Your task to perform on an android device: Turn off the flashlight Image 0: 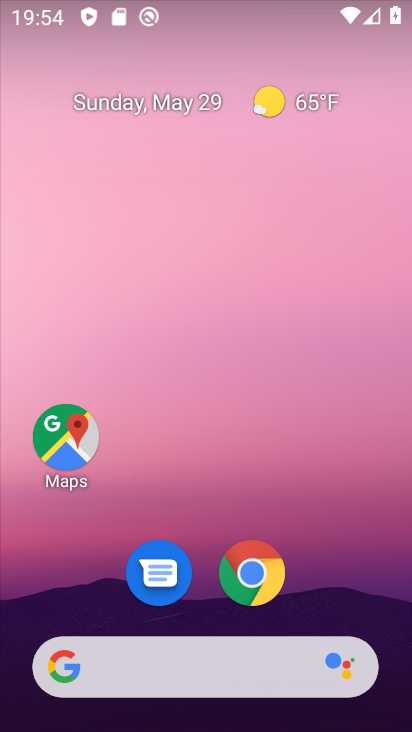
Step 0: drag from (195, 610) to (175, 210)
Your task to perform on an android device: Turn off the flashlight Image 1: 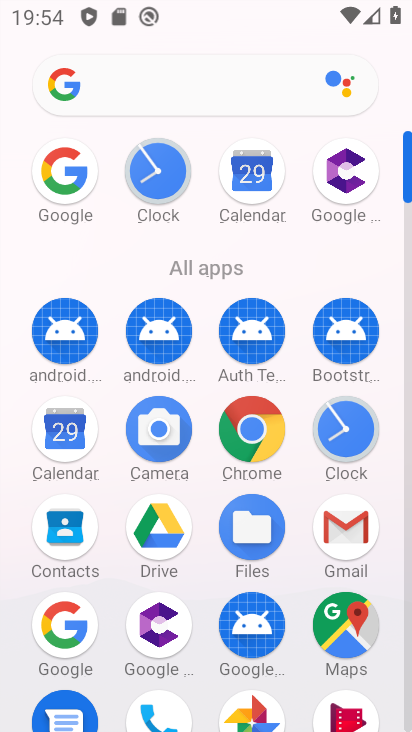
Step 1: drag from (112, 576) to (112, 278)
Your task to perform on an android device: Turn off the flashlight Image 2: 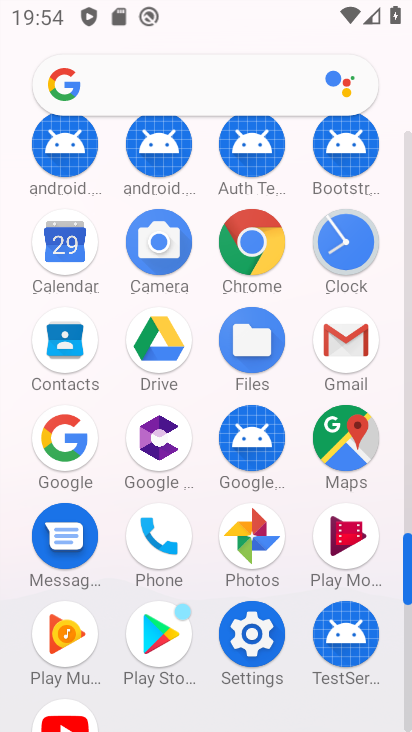
Step 2: click (226, 643)
Your task to perform on an android device: Turn off the flashlight Image 3: 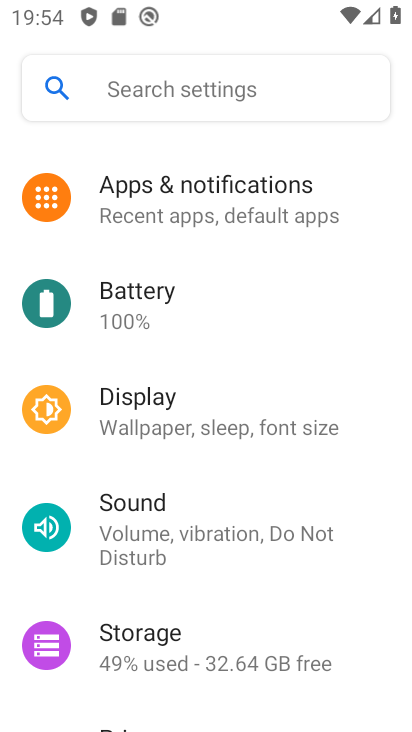
Step 3: task complete